Your task to perform on an android device: Open settings on Google Maps Image 0: 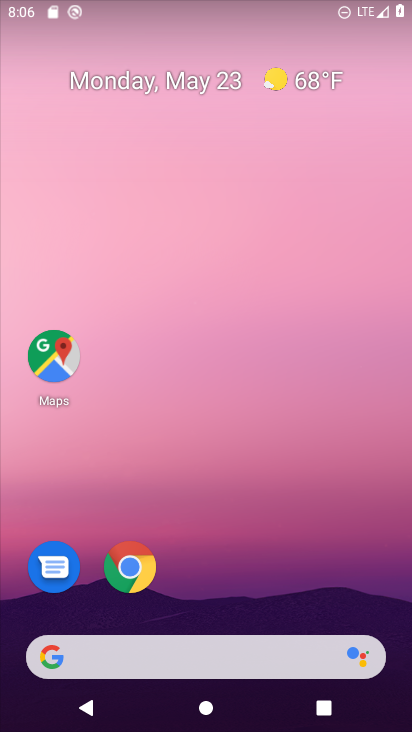
Step 0: drag from (166, 627) to (369, 122)
Your task to perform on an android device: Open settings on Google Maps Image 1: 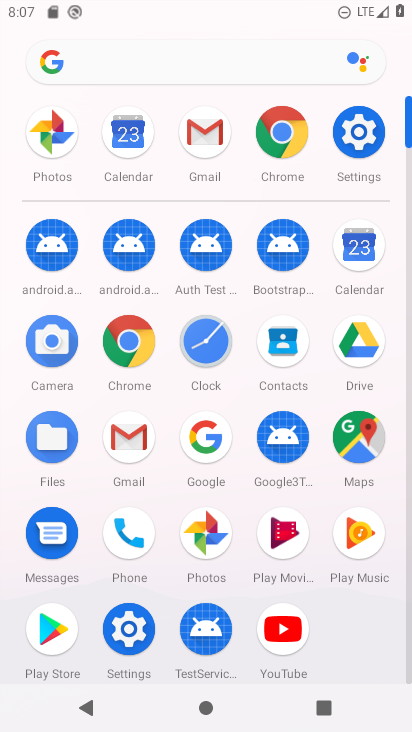
Step 1: click (205, 431)
Your task to perform on an android device: Open settings on Google Maps Image 2: 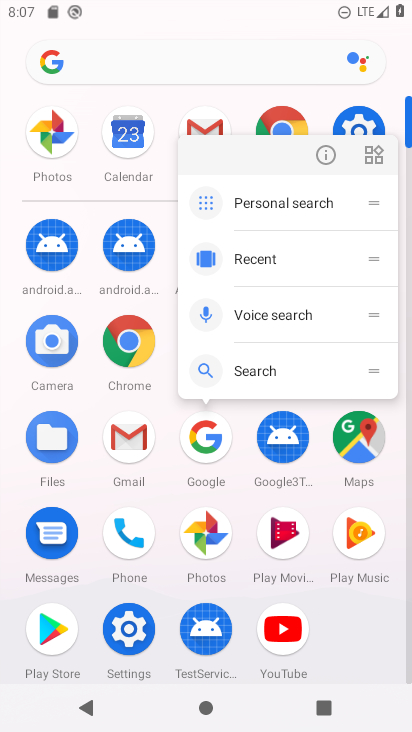
Step 2: click (325, 149)
Your task to perform on an android device: Open settings on Google Maps Image 3: 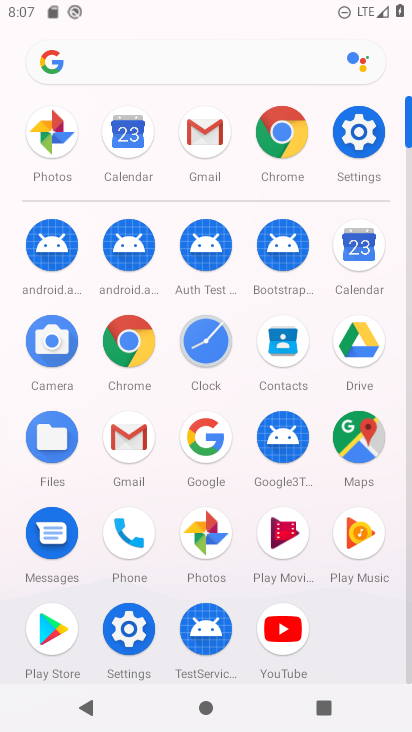
Step 3: click (366, 405)
Your task to perform on an android device: Open settings on Google Maps Image 4: 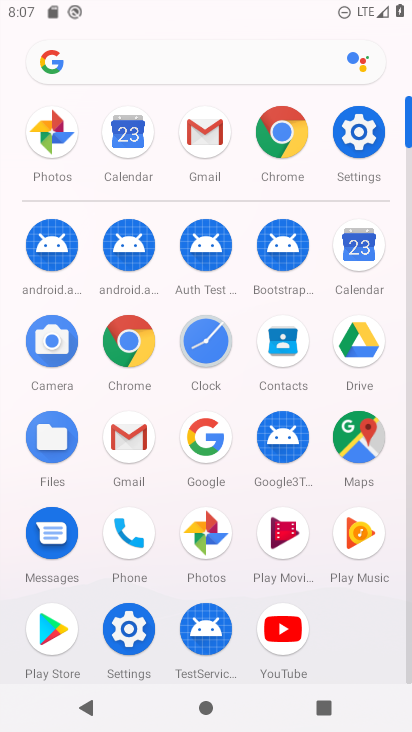
Step 4: click (366, 405)
Your task to perform on an android device: Open settings on Google Maps Image 5: 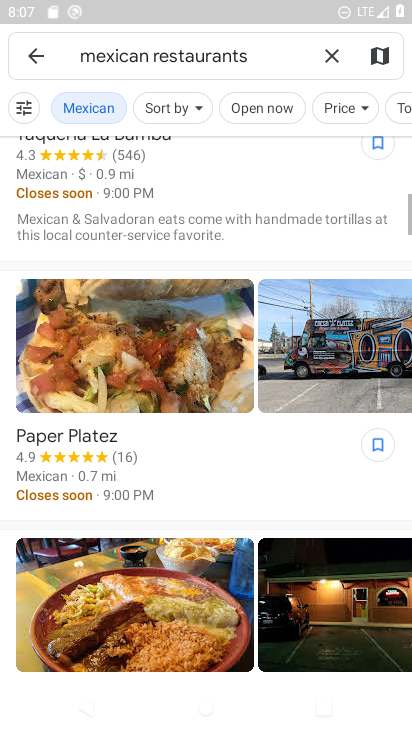
Step 5: click (36, 60)
Your task to perform on an android device: Open settings on Google Maps Image 6: 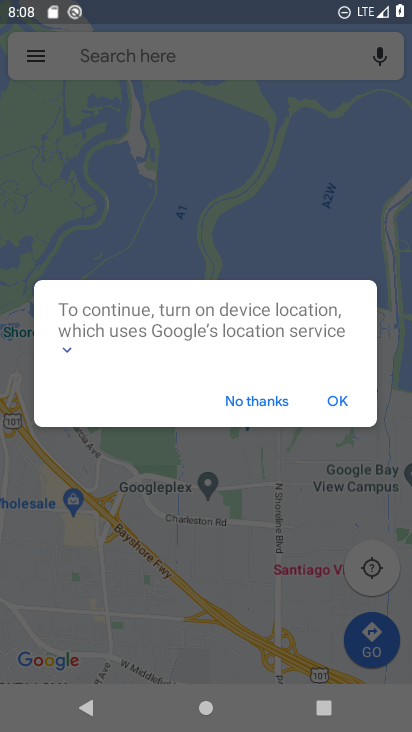
Step 6: click (329, 402)
Your task to perform on an android device: Open settings on Google Maps Image 7: 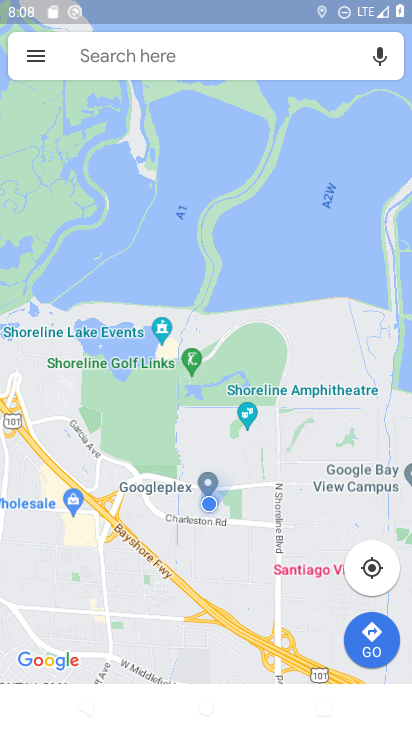
Step 7: click (34, 61)
Your task to perform on an android device: Open settings on Google Maps Image 8: 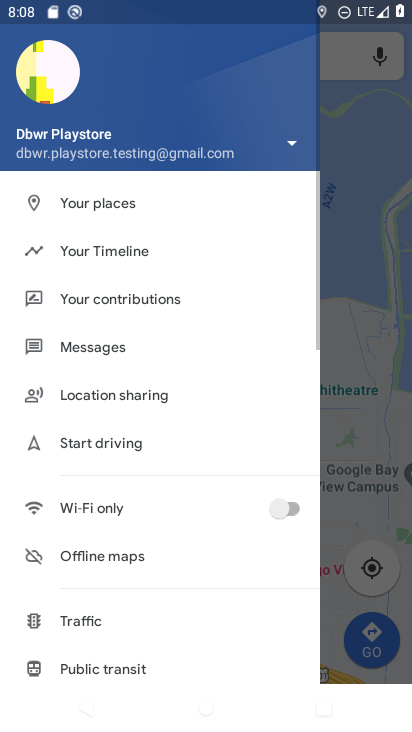
Step 8: drag from (93, 626) to (211, 111)
Your task to perform on an android device: Open settings on Google Maps Image 9: 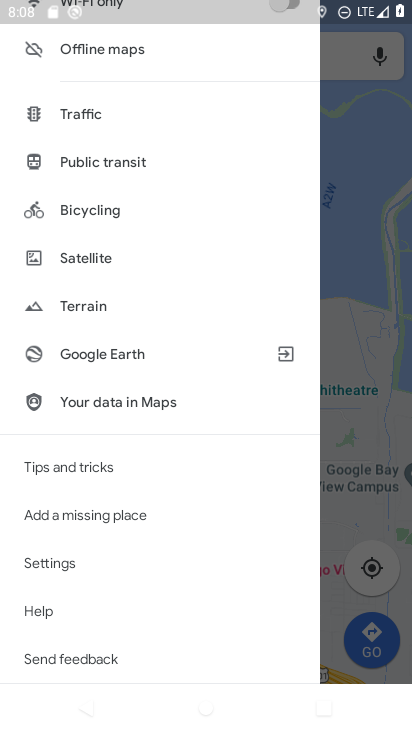
Step 9: click (52, 550)
Your task to perform on an android device: Open settings on Google Maps Image 10: 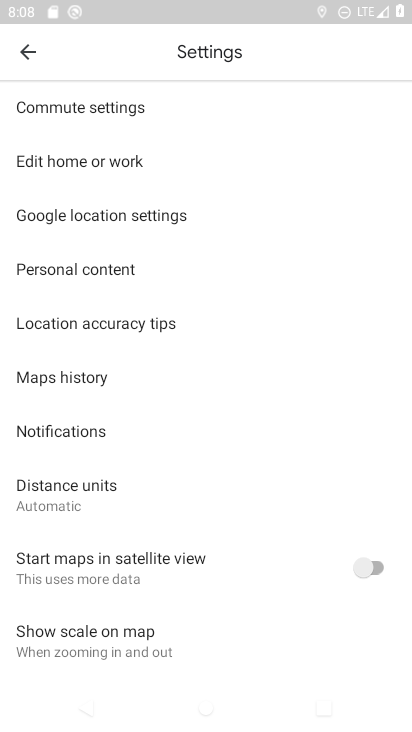
Step 10: task complete